Your task to perform on an android device: Do I have any events this weekend? Image 0: 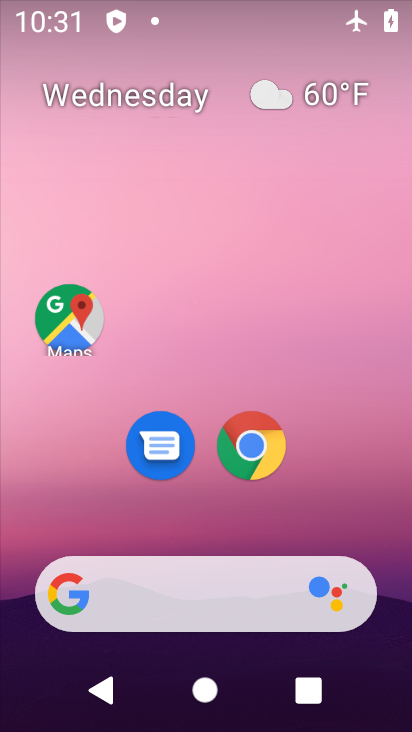
Step 0: drag from (197, 526) to (217, 134)
Your task to perform on an android device: Do I have any events this weekend? Image 1: 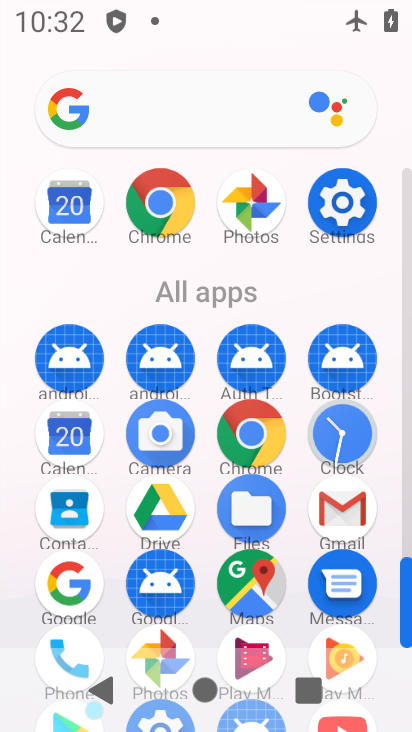
Step 1: click (65, 437)
Your task to perform on an android device: Do I have any events this weekend? Image 2: 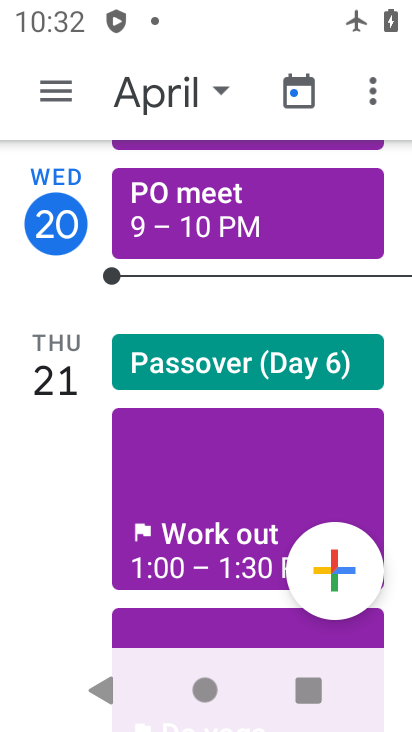
Step 2: click (207, 89)
Your task to perform on an android device: Do I have any events this weekend? Image 3: 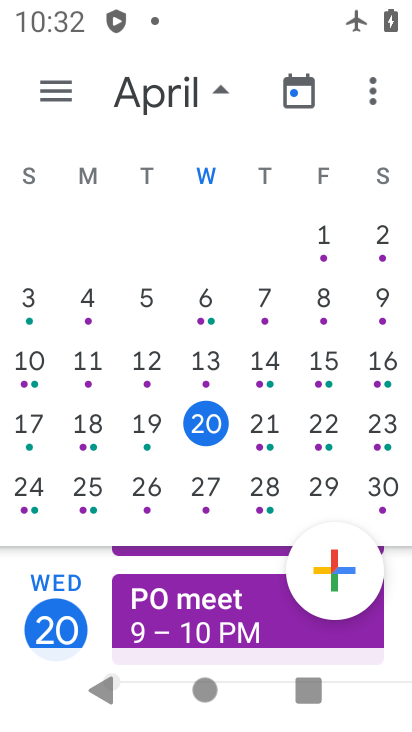
Step 3: click (379, 432)
Your task to perform on an android device: Do I have any events this weekend? Image 4: 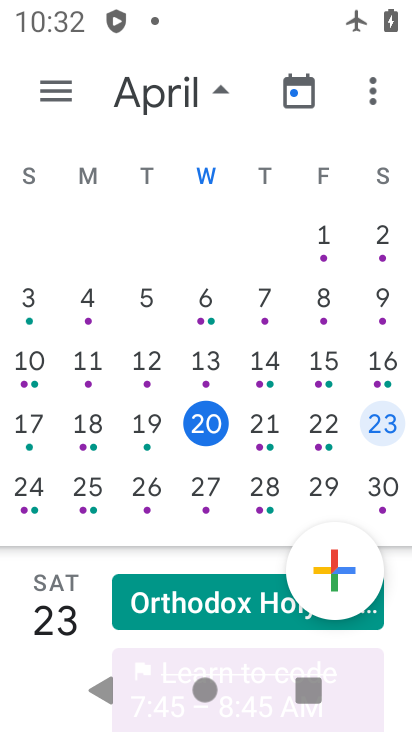
Step 4: drag from (208, 530) to (248, 252)
Your task to perform on an android device: Do I have any events this weekend? Image 5: 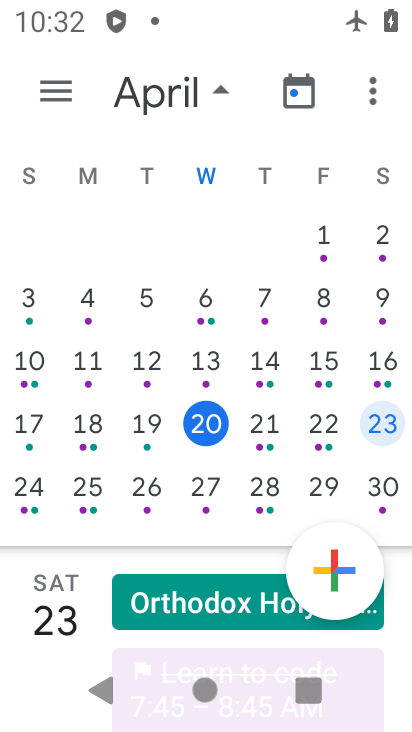
Step 5: drag from (204, 562) to (258, 290)
Your task to perform on an android device: Do I have any events this weekend? Image 6: 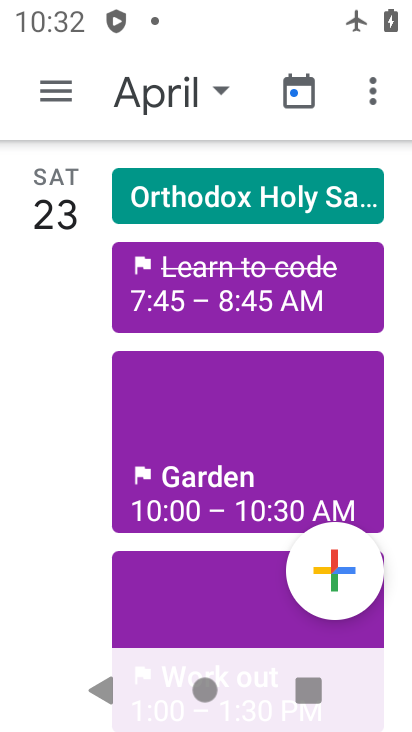
Step 6: click (236, 321)
Your task to perform on an android device: Do I have any events this weekend? Image 7: 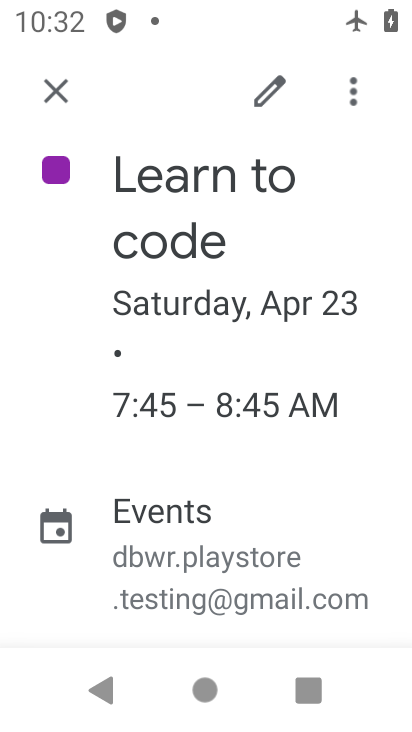
Step 7: task complete